Your task to perform on an android device: Open Google Image 0: 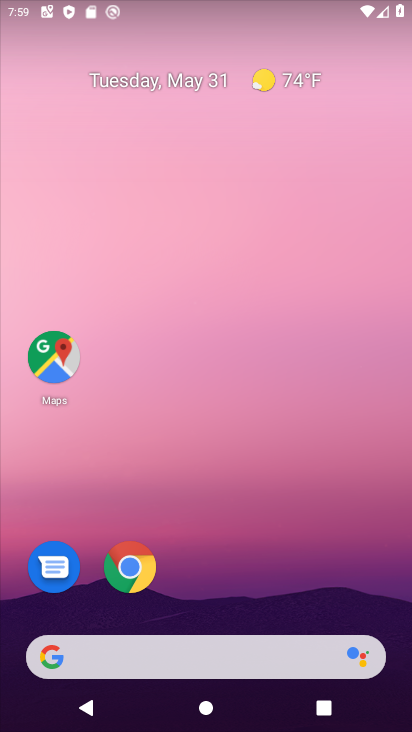
Step 0: drag from (292, 677) to (335, 224)
Your task to perform on an android device: Open Google Image 1: 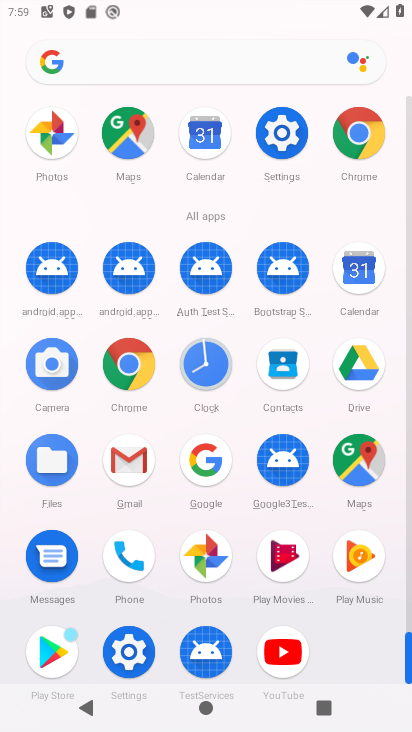
Step 1: click (206, 457)
Your task to perform on an android device: Open Google Image 2: 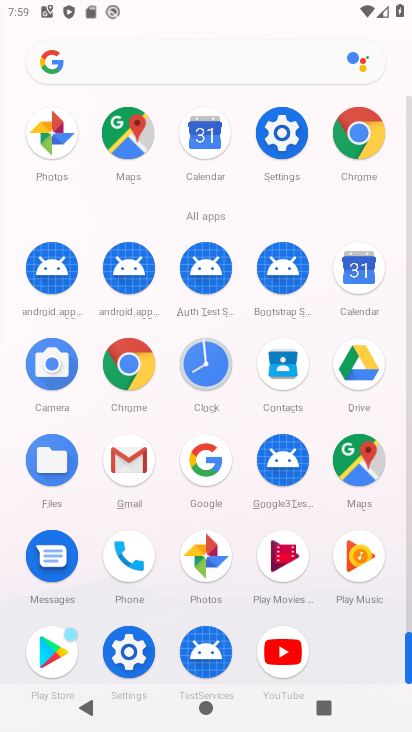
Step 2: click (213, 456)
Your task to perform on an android device: Open Google Image 3: 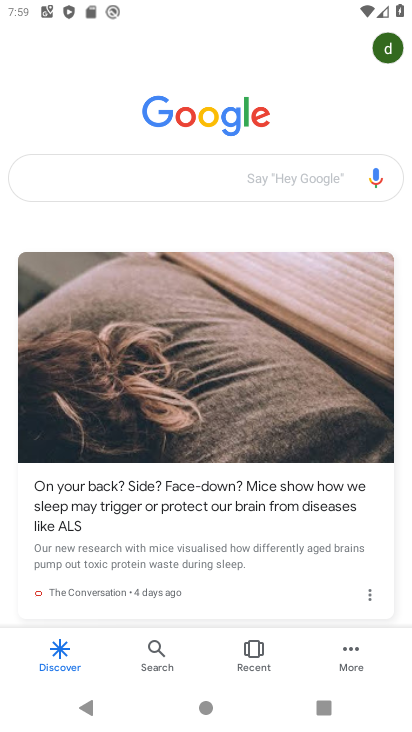
Step 3: task complete